Your task to perform on an android device: search for starred emails in the gmail app Image 0: 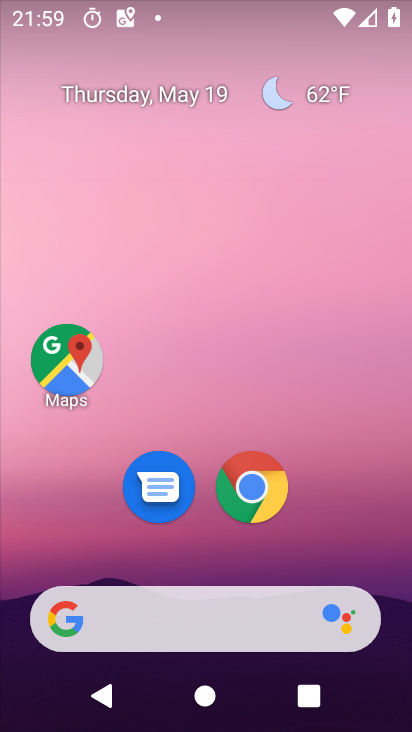
Step 0: drag from (323, 549) to (278, 193)
Your task to perform on an android device: search for starred emails in the gmail app Image 1: 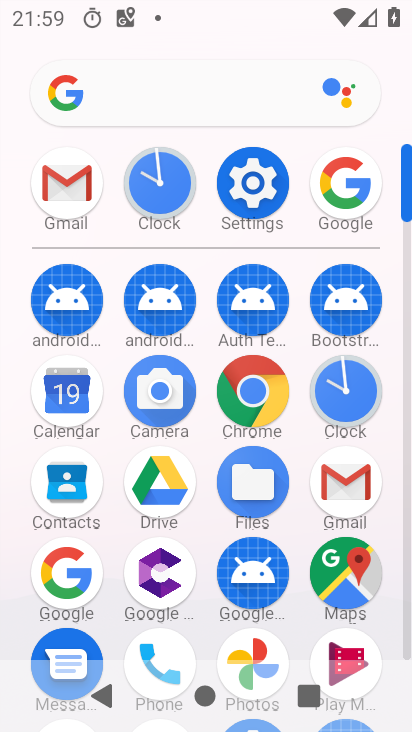
Step 1: click (59, 178)
Your task to perform on an android device: search for starred emails in the gmail app Image 2: 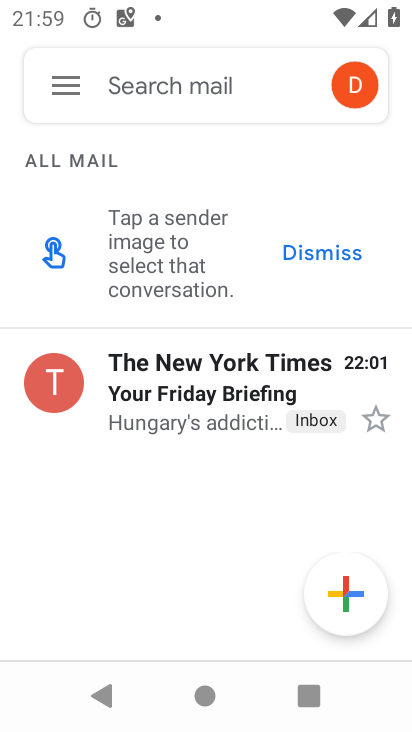
Step 2: click (71, 88)
Your task to perform on an android device: search for starred emails in the gmail app Image 3: 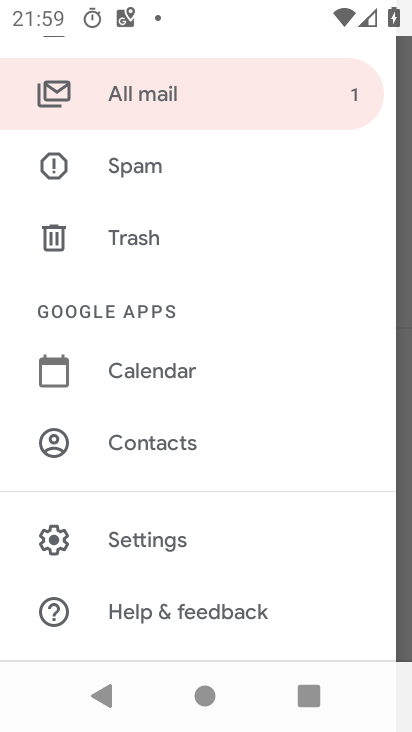
Step 3: drag from (224, 199) to (257, 526)
Your task to perform on an android device: search for starred emails in the gmail app Image 4: 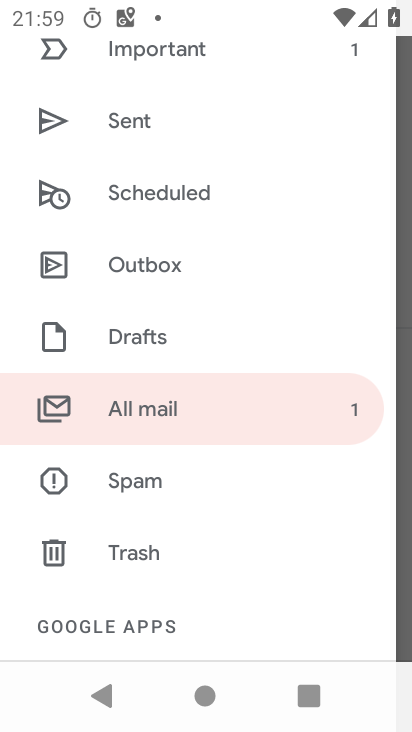
Step 4: drag from (241, 176) to (249, 483)
Your task to perform on an android device: search for starred emails in the gmail app Image 5: 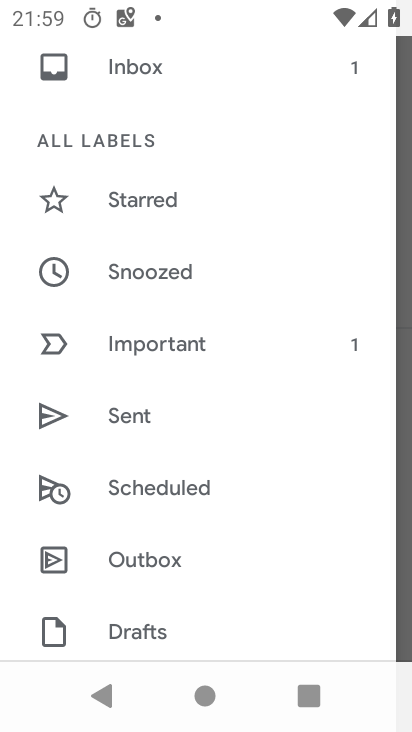
Step 5: click (154, 209)
Your task to perform on an android device: search for starred emails in the gmail app Image 6: 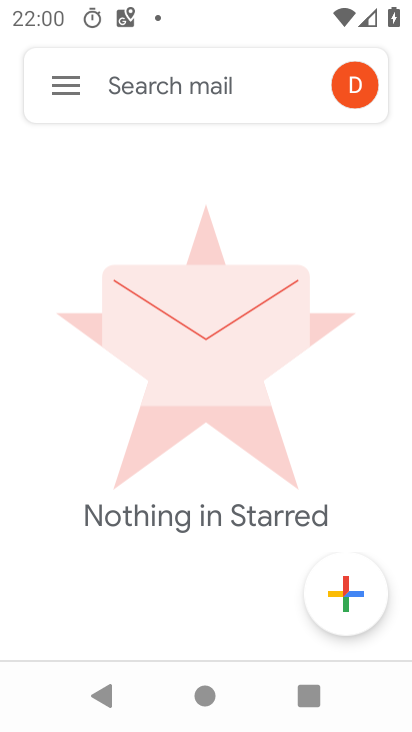
Step 6: task complete